Your task to perform on an android device: Open privacy settings Image 0: 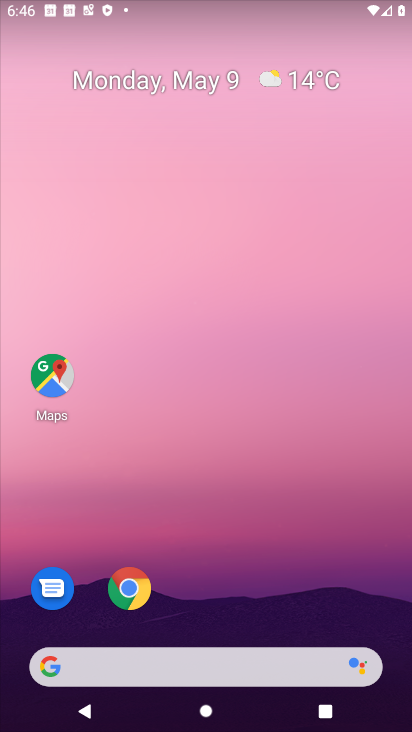
Step 0: drag from (365, 597) to (346, 35)
Your task to perform on an android device: Open privacy settings Image 1: 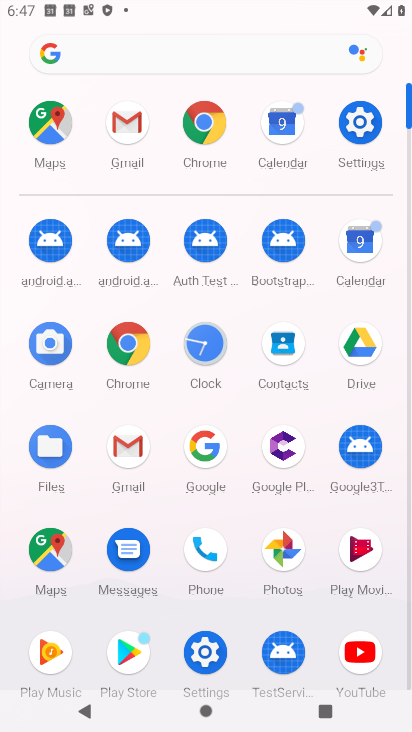
Step 1: click (207, 663)
Your task to perform on an android device: Open privacy settings Image 2: 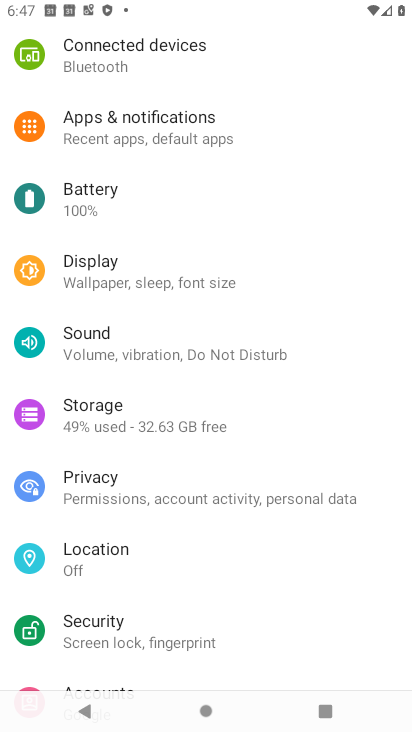
Step 2: click (143, 483)
Your task to perform on an android device: Open privacy settings Image 3: 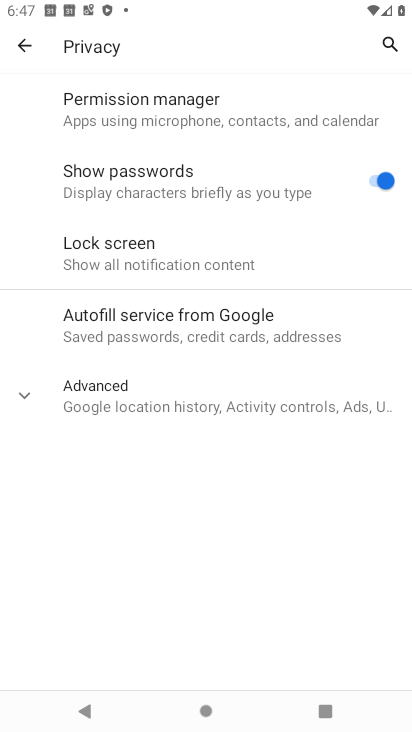
Step 3: task complete